Your task to perform on an android device: change your default location settings in chrome Image 0: 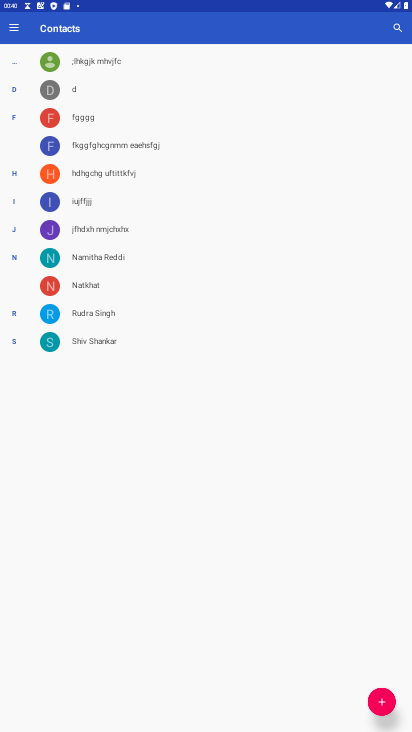
Step 0: press home button
Your task to perform on an android device: change your default location settings in chrome Image 1: 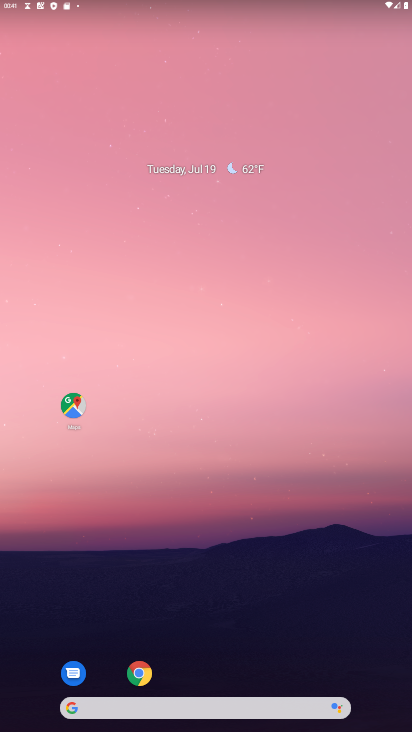
Step 1: drag from (222, 647) to (221, 262)
Your task to perform on an android device: change your default location settings in chrome Image 2: 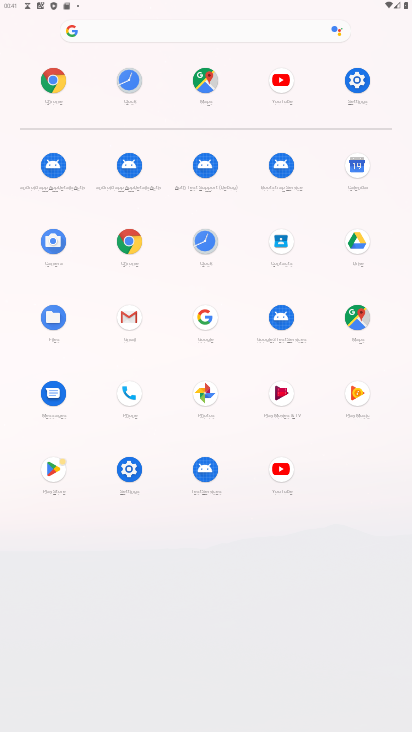
Step 2: click (131, 231)
Your task to perform on an android device: change your default location settings in chrome Image 3: 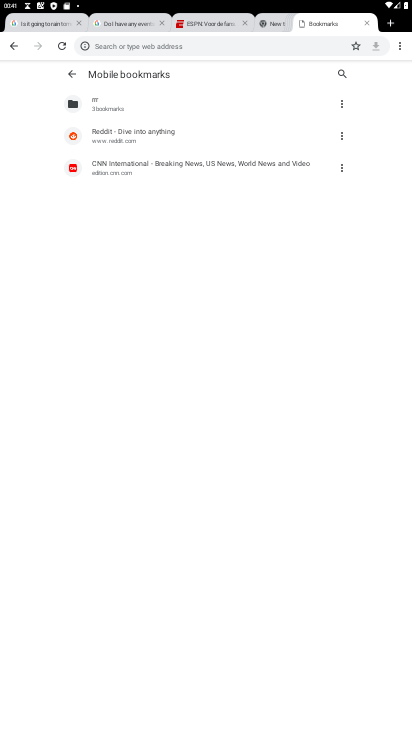
Step 3: click (399, 48)
Your task to perform on an android device: change your default location settings in chrome Image 4: 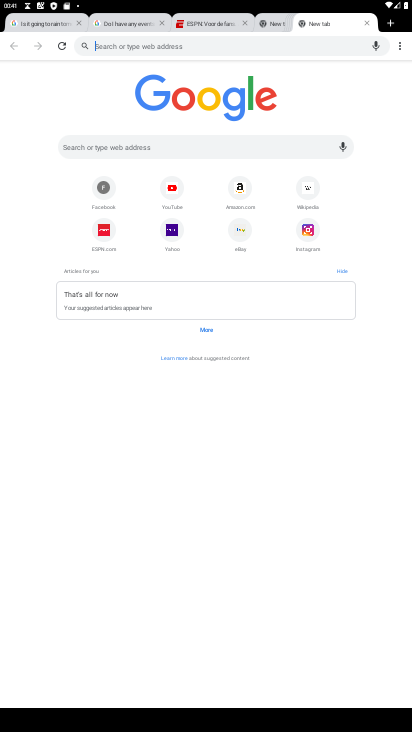
Step 4: click (396, 37)
Your task to perform on an android device: change your default location settings in chrome Image 5: 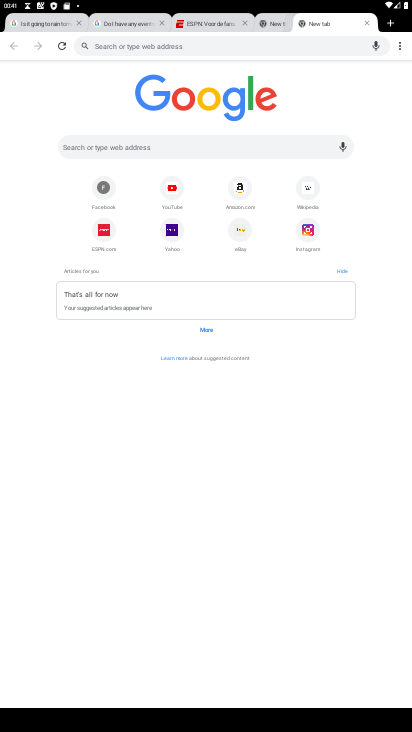
Step 5: click (401, 47)
Your task to perform on an android device: change your default location settings in chrome Image 6: 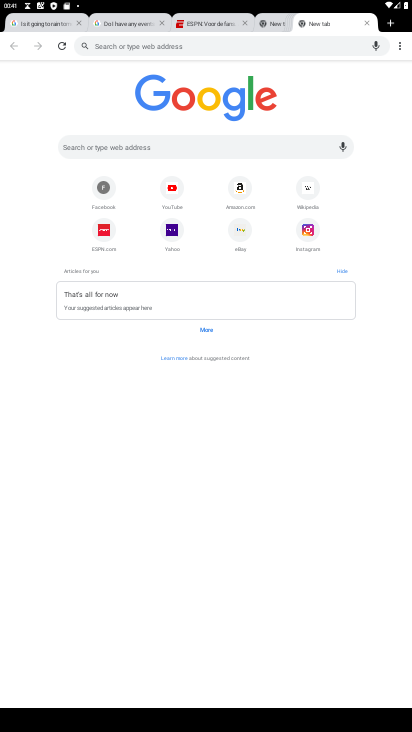
Step 6: click (397, 44)
Your task to perform on an android device: change your default location settings in chrome Image 7: 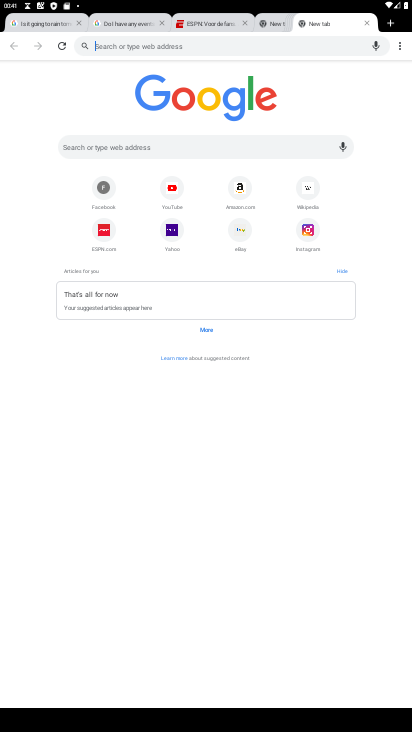
Step 7: click (405, 41)
Your task to perform on an android device: change your default location settings in chrome Image 8: 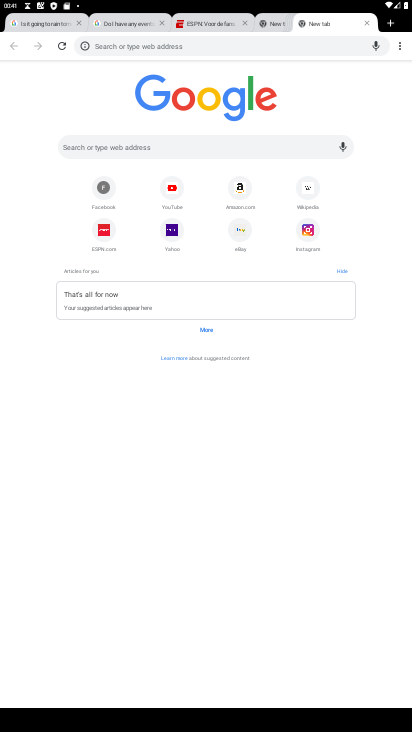
Step 8: click (399, 47)
Your task to perform on an android device: change your default location settings in chrome Image 9: 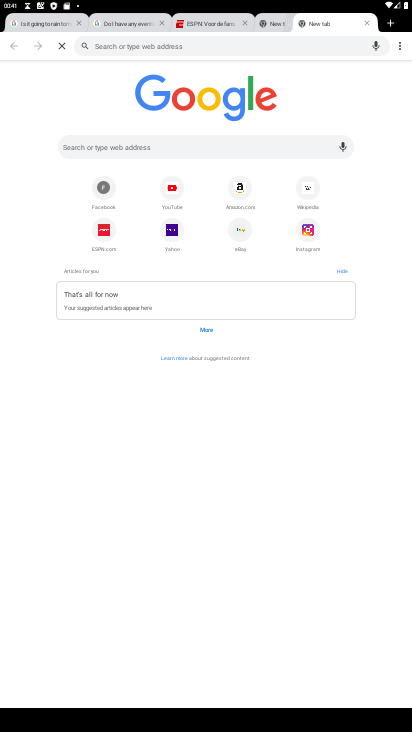
Step 9: click (399, 47)
Your task to perform on an android device: change your default location settings in chrome Image 10: 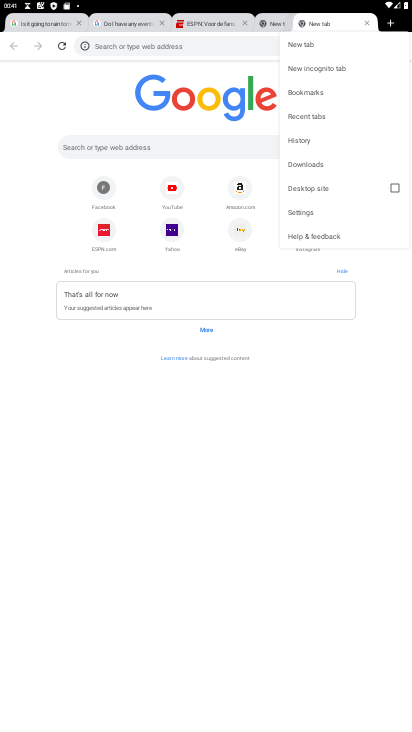
Step 10: click (307, 214)
Your task to perform on an android device: change your default location settings in chrome Image 11: 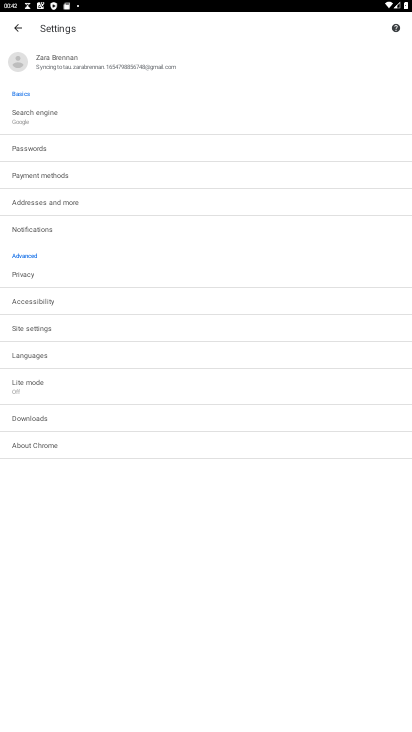
Step 11: click (61, 325)
Your task to perform on an android device: change your default location settings in chrome Image 12: 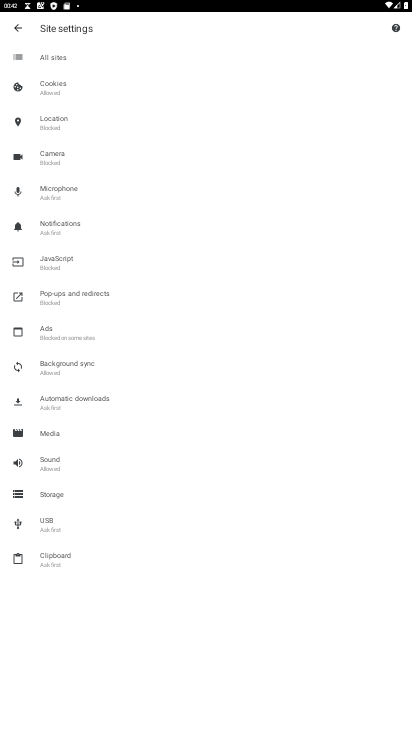
Step 12: click (75, 131)
Your task to perform on an android device: change your default location settings in chrome Image 13: 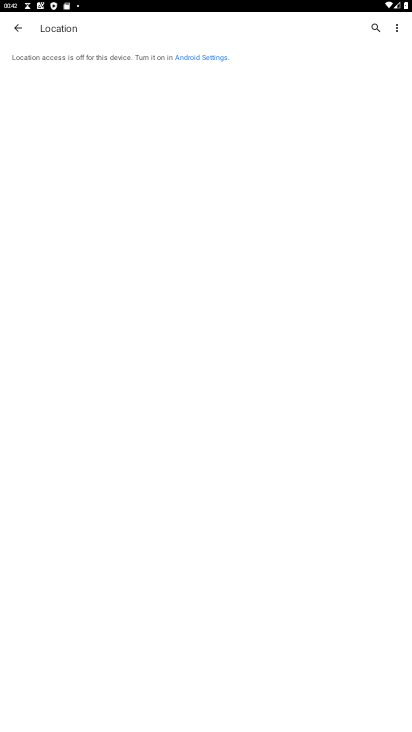
Step 13: task complete